Your task to perform on an android device: Add "macbook pro" to the cart on walmart.com Image 0: 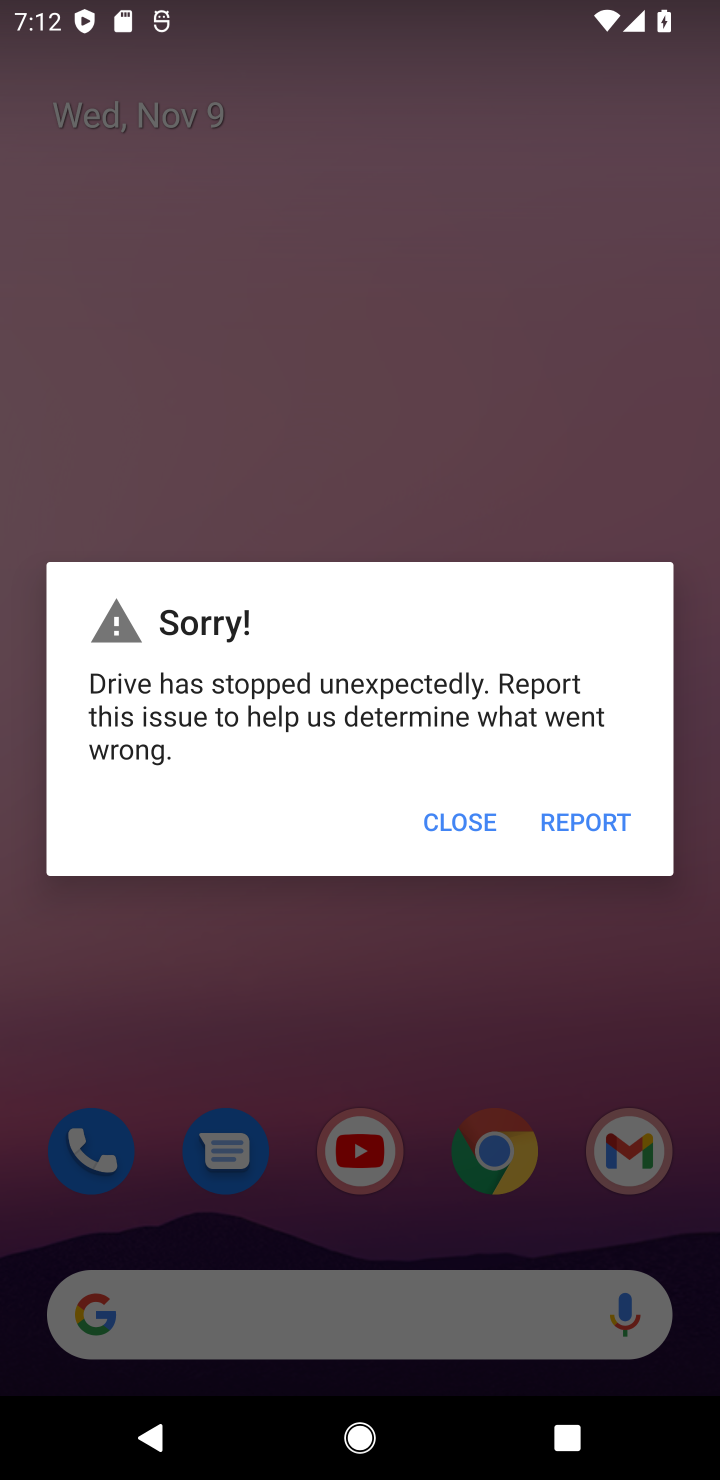
Step 0: task impossible